Your task to perform on an android device: turn on data saver in the chrome app Image 0: 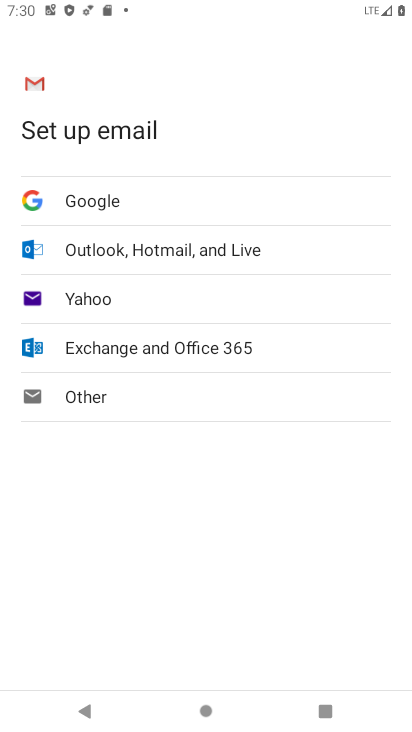
Step 0: press home button
Your task to perform on an android device: turn on data saver in the chrome app Image 1: 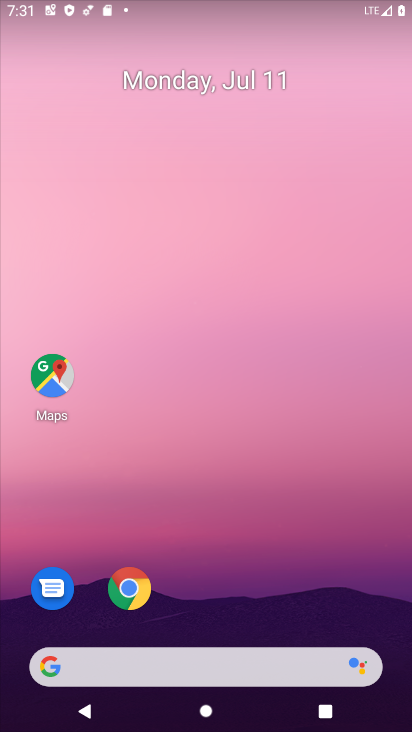
Step 1: drag from (353, 626) to (225, 18)
Your task to perform on an android device: turn on data saver in the chrome app Image 2: 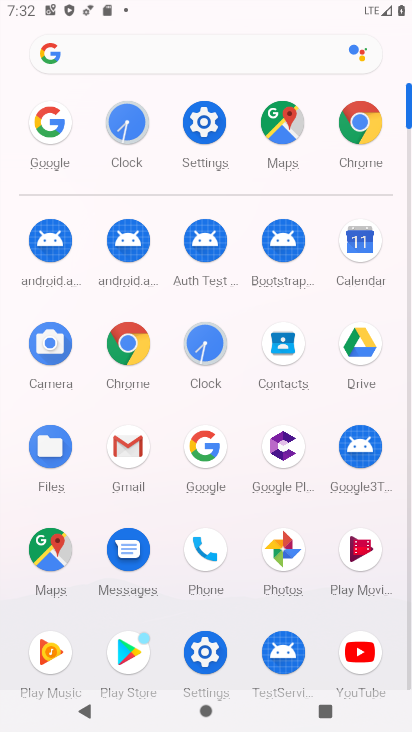
Step 2: click (367, 137)
Your task to perform on an android device: turn on data saver in the chrome app Image 3: 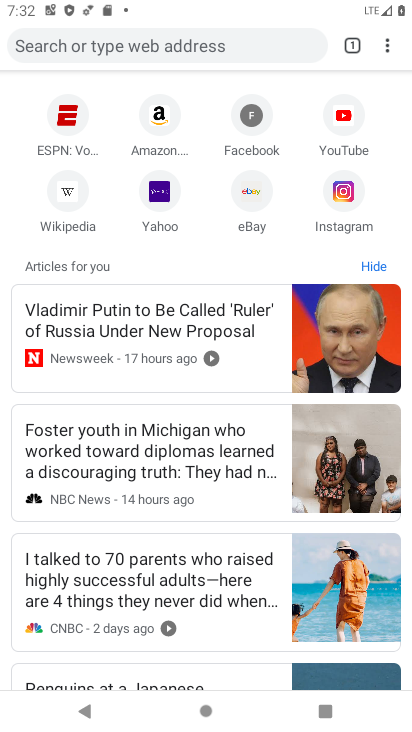
Step 3: click (387, 44)
Your task to perform on an android device: turn on data saver in the chrome app Image 4: 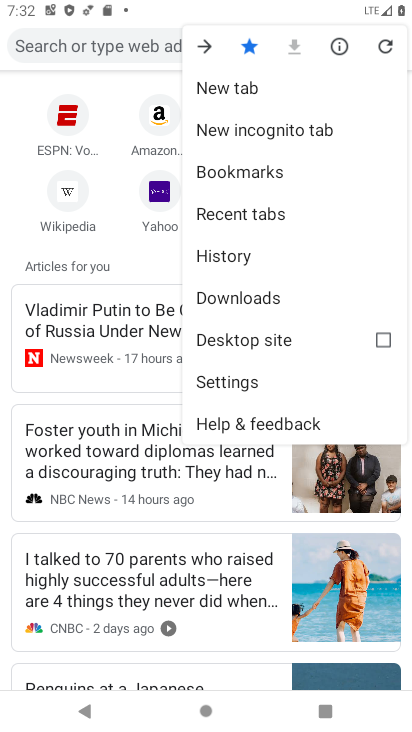
Step 4: click (251, 382)
Your task to perform on an android device: turn on data saver in the chrome app Image 5: 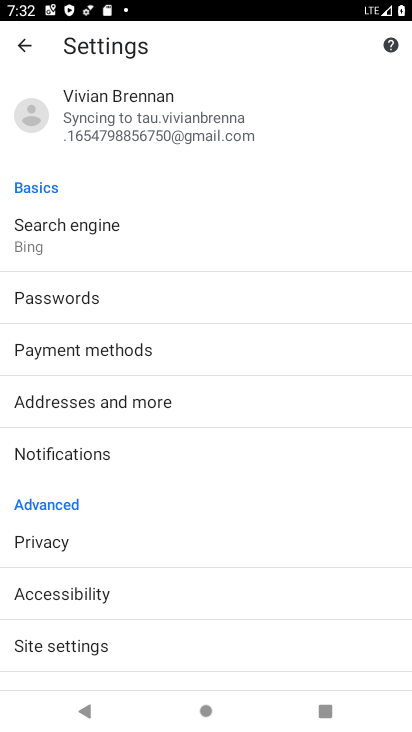
Step 5: drag from (187, 597) to (213, 169)
Your task to perform on an android device: turn on data saver in the chrome app Image 6: 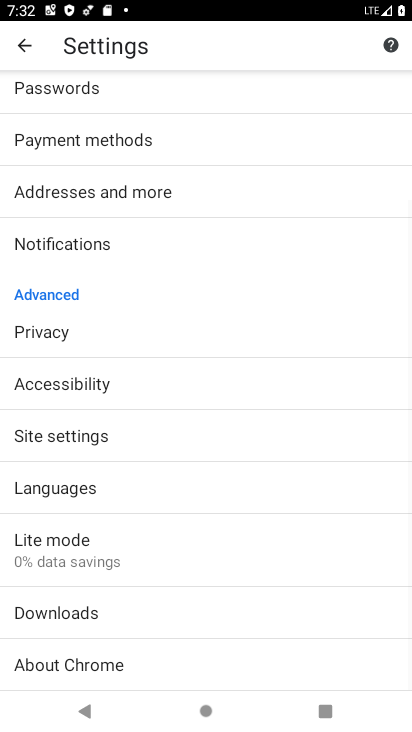
Step 6: click (126, 548)
Your task to perform on an android device: turn on data saver in the chrome app Image 7: 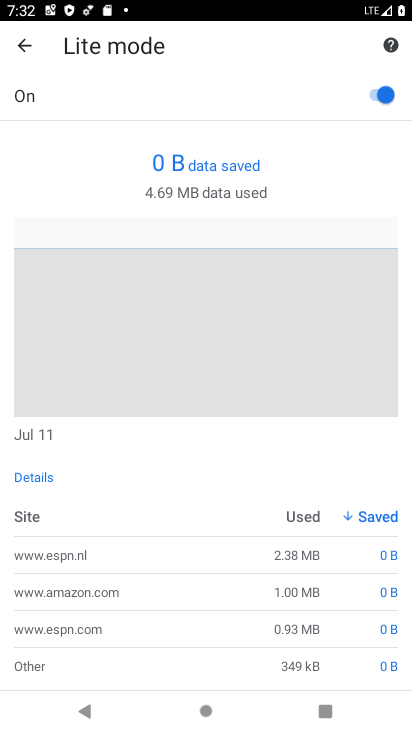
Step 7: task complete